Your task to perform on an android device: change notification settings in the gmail app Image 0: 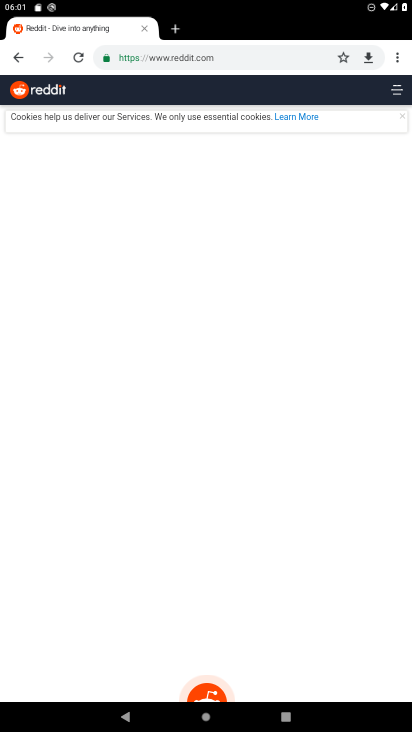
Step 0: press home button
Your task to perform on an android device: change notification settings in the gmail app Image 1: 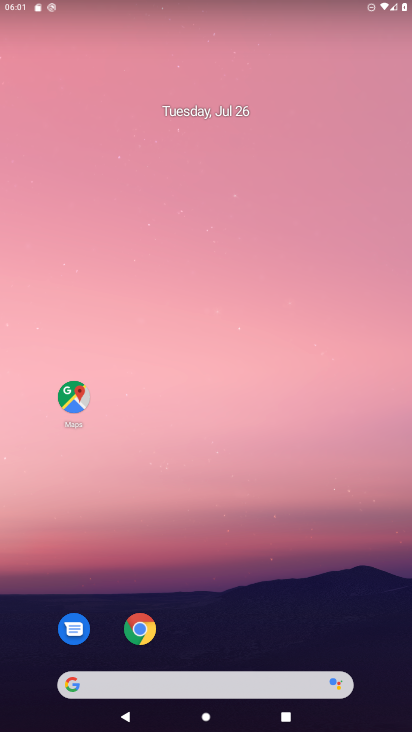
Step 1: drag from (195, 583) to (190, 203)
Your task to perform on an android device: change notification settings in the gmail app Image 2: 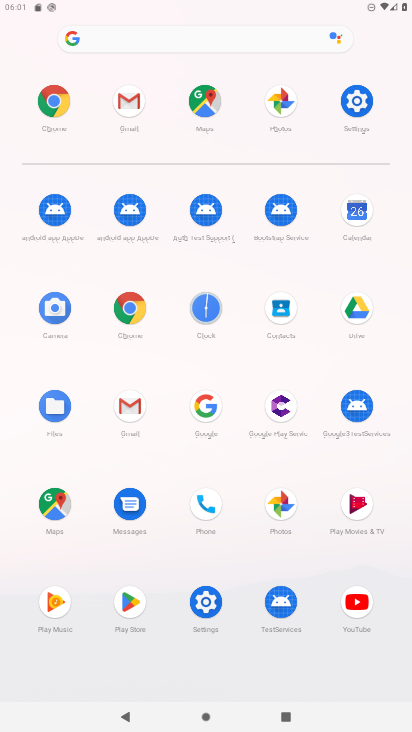
Step 2: click (130, 406)
Your task to perform on an android device: change notification settings in the gmail app Image 3: 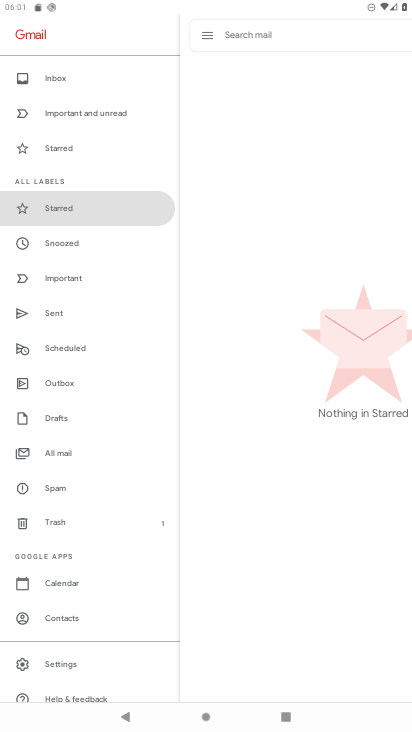
Step 3: click (60, 661)
Your task to perform on an android device: change notification settings in the gmail app Image 4: 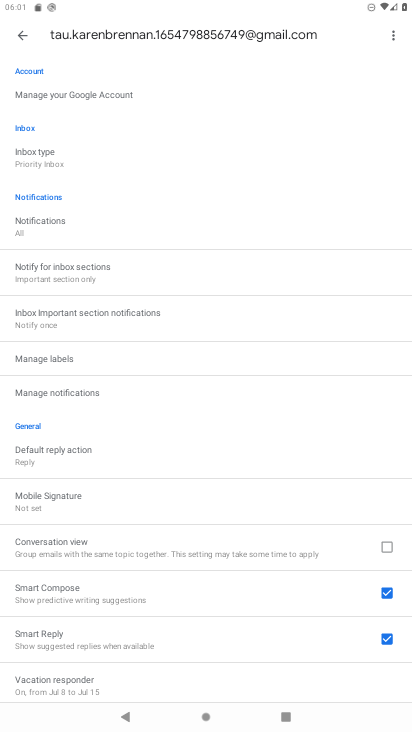
Step 4: click (73, 393)
Your task to perform on an android device: change notification settings in the gmail app Image 5: 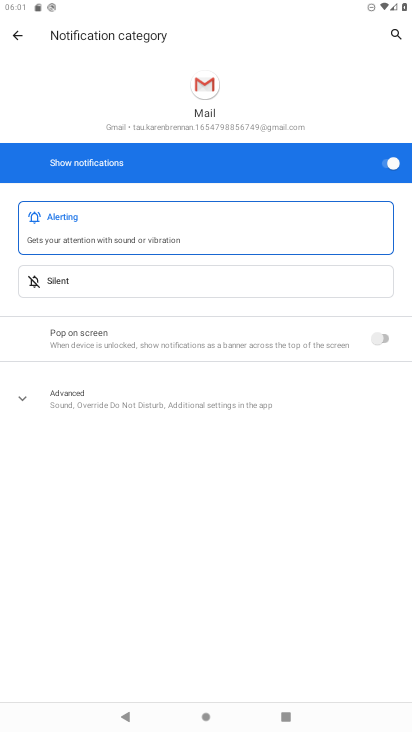
Step 5: click (385, 160)
Your task to perform on an android device: change notification settings in the gmail app Image 6: 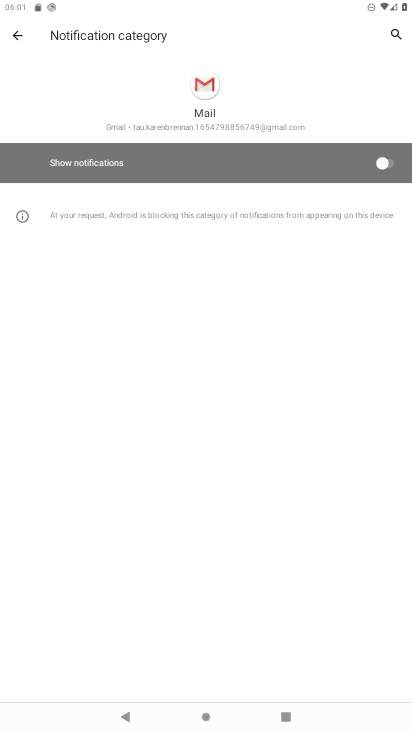
Step 6: task complete